Your task to perform on an android device: Open Chrome and go to the settings page Image 0: 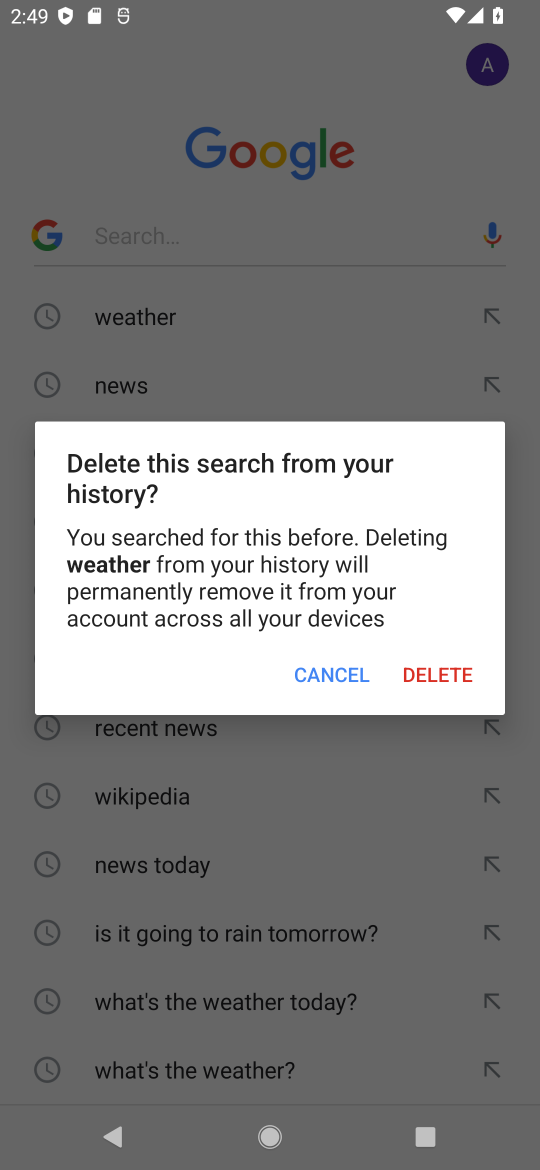
Step 0: click (336, 687)
Your task to perform on an android device: Open Chrome and go to the settings page Image 1: 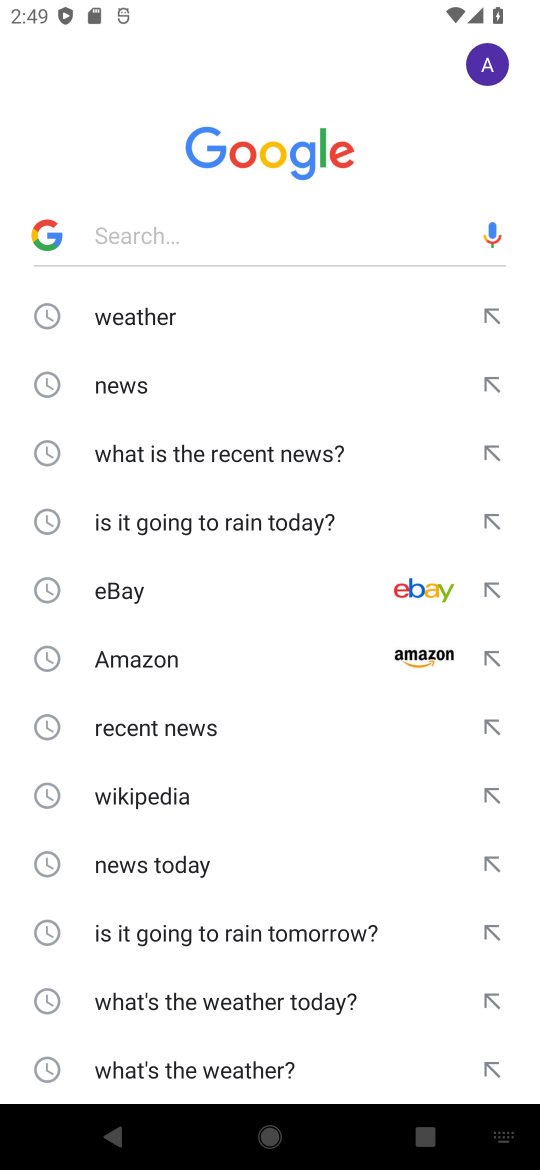
Step 1: press back button
Your task to perform on an android device: Open Chrome and go to the settings page Image 2: 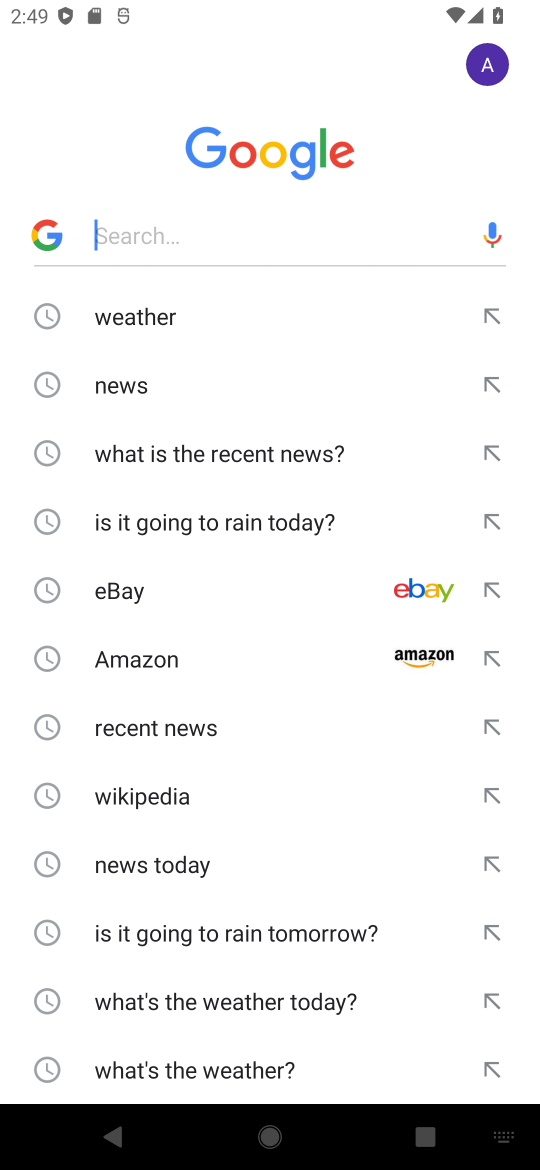
Step 2: press back button
Your task to perform on an android device: Open Chrome and go to the settings page Image 3: 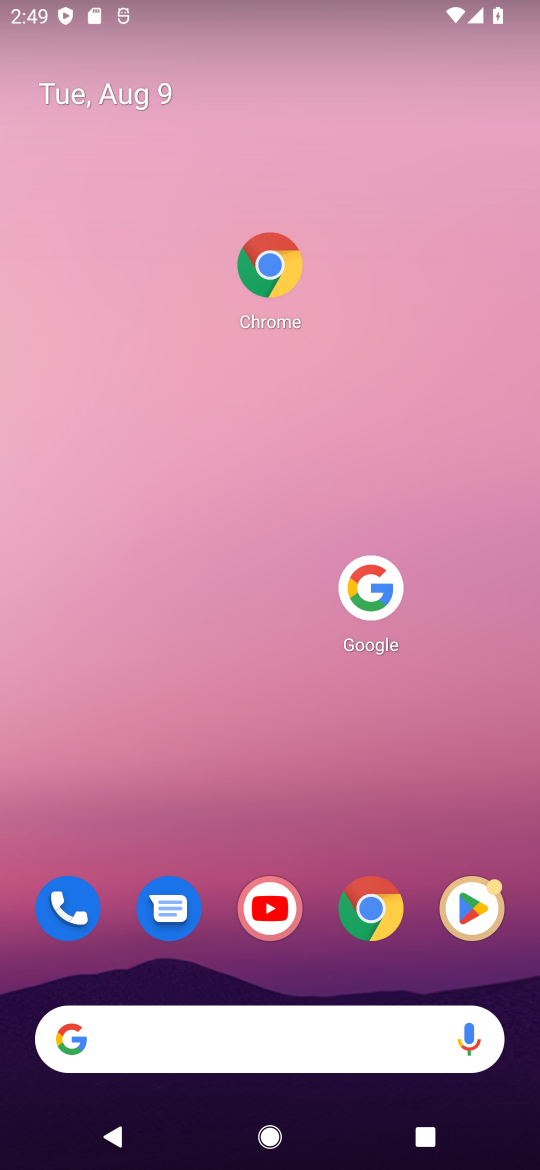
Step 3: press back button
Your task to perform on an android device: Open Chrome and go to the settings page Image 4: 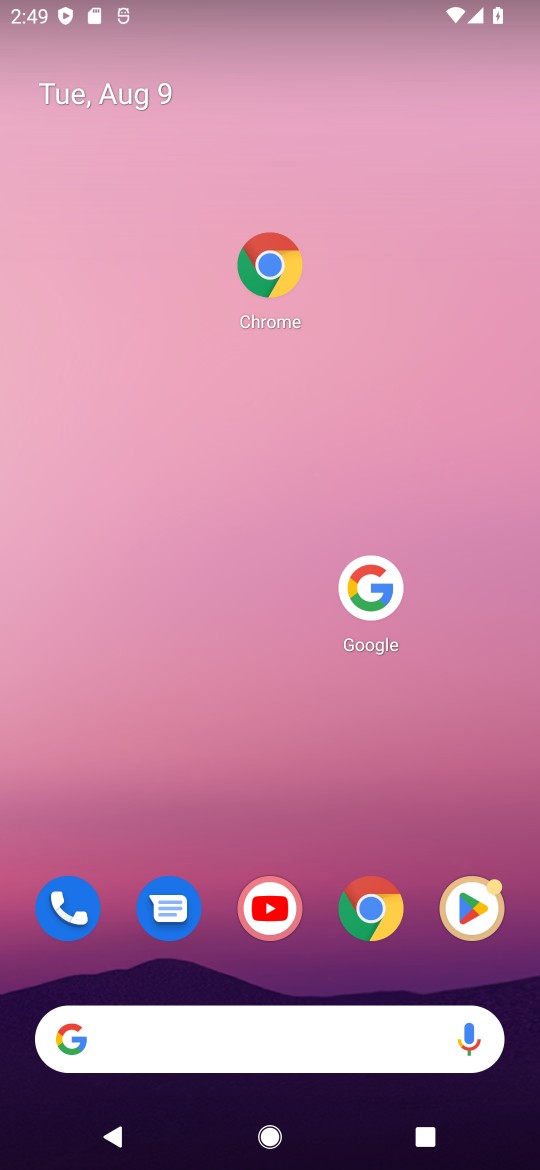
Step 4: press back button
Your task to perform on an android device: Open Chrome and go to the settings page Image 5: 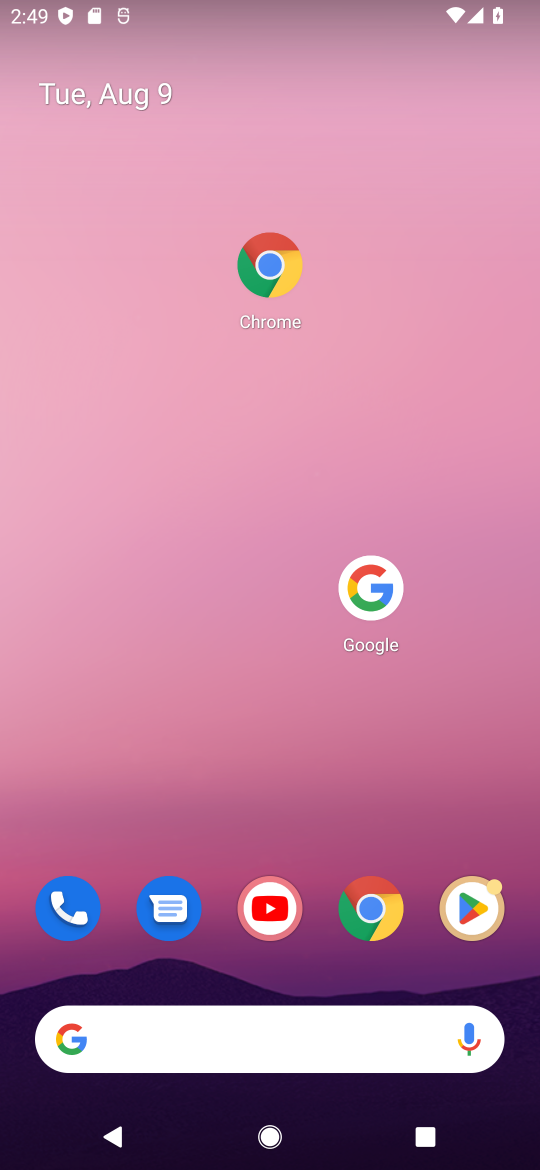
Step 5: drag from (265, 346) to (241, 82)
Your task to perform on an android device: Open Chrome and go to the settings page Image 6: 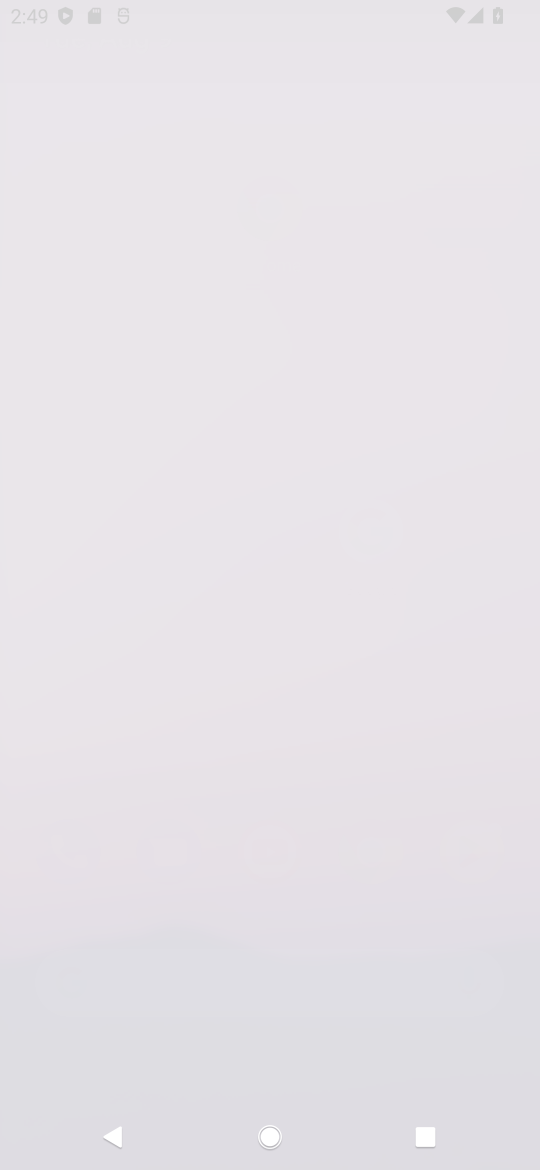
Step 6: drag from (301, 666) to (245, 306)
Your task to perform on an android device: Open Chrome and go to the settings page Image 7: 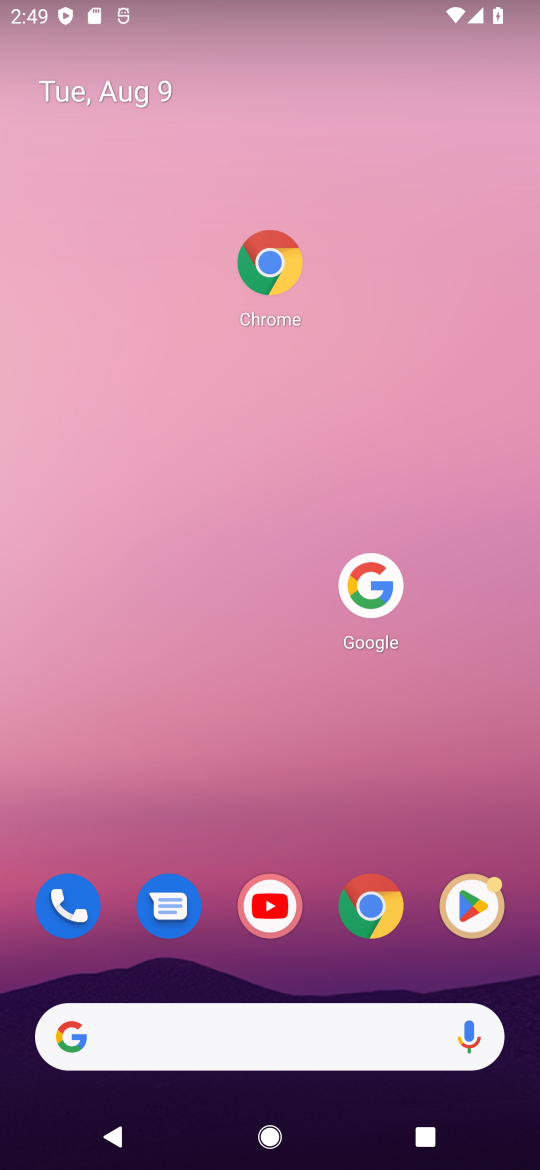
Step 7: drag from (204, 562) to (204, 442)
Your task to perform on an android device: Open Chrome and go to the settings page Image 8: 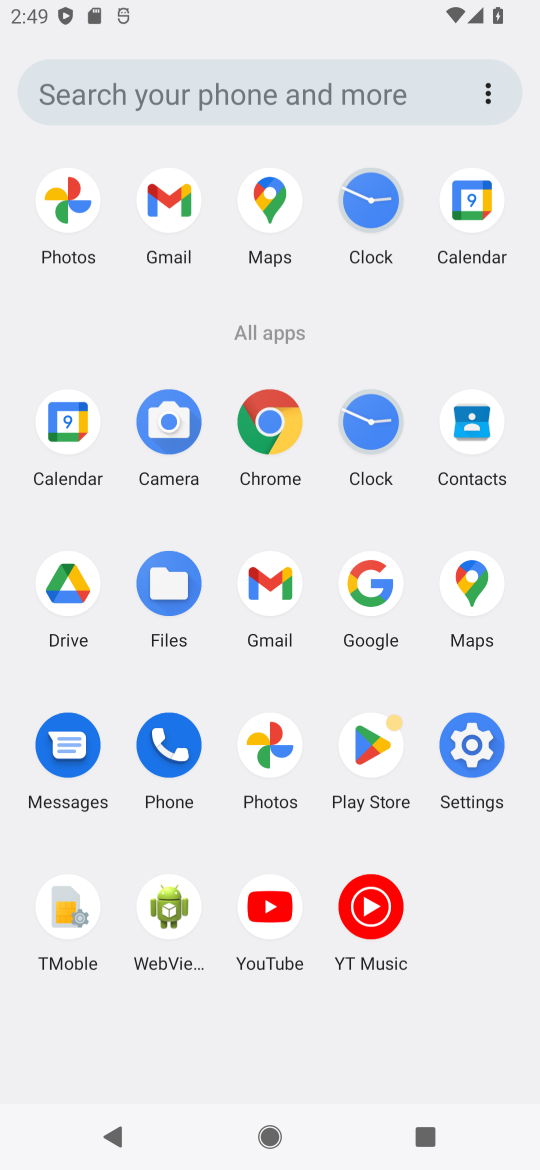
Step 8: drag from (353, 935) to (317, 323)
Your task to perform on an android device: Open Chrome and go to the settings page Image 9: 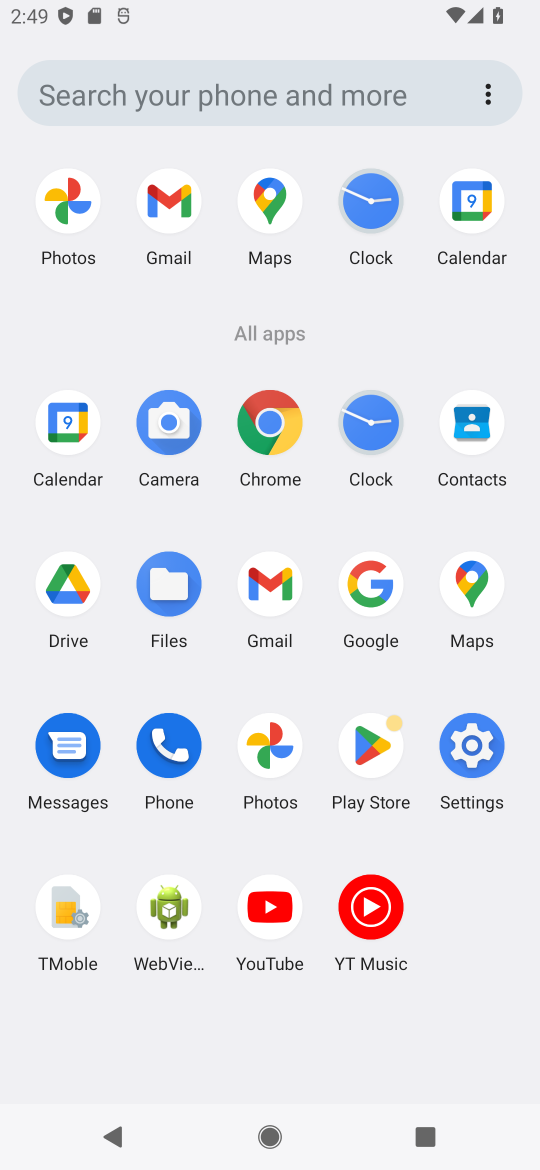
Step 9: click (481, 752)
Your task to perform on an android device: Open Chrome and go to the settings page Image 10: 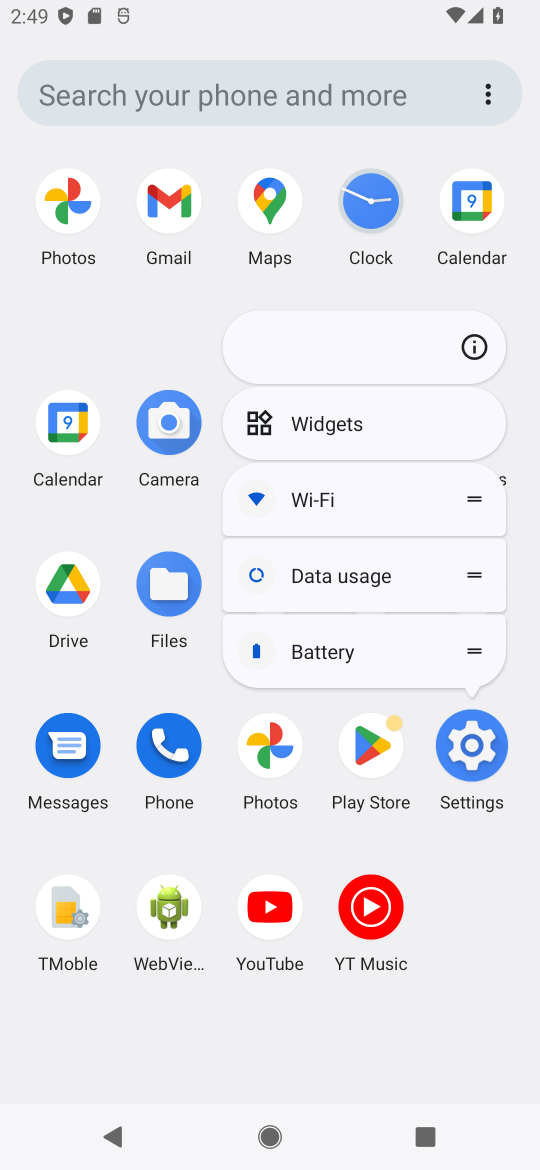
Step 10: click (477, 747)
Your task to perform on an android device: Open Chrome and go to the settings page Image 11: 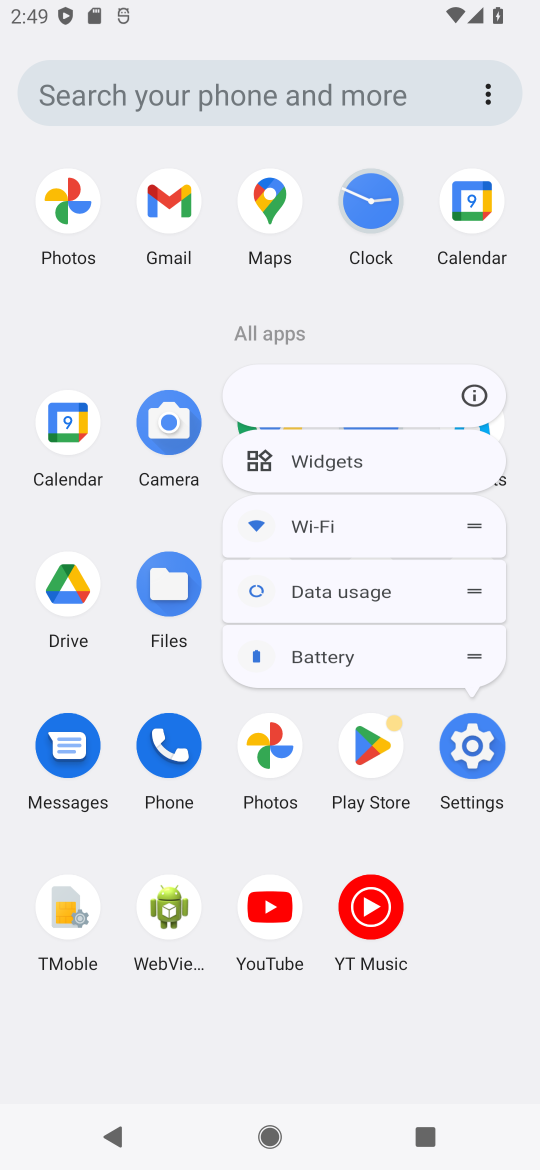
Step 11: click (481, 758)
Your task to perform on an android device: Open Chrome and go to the settings page Image 12: 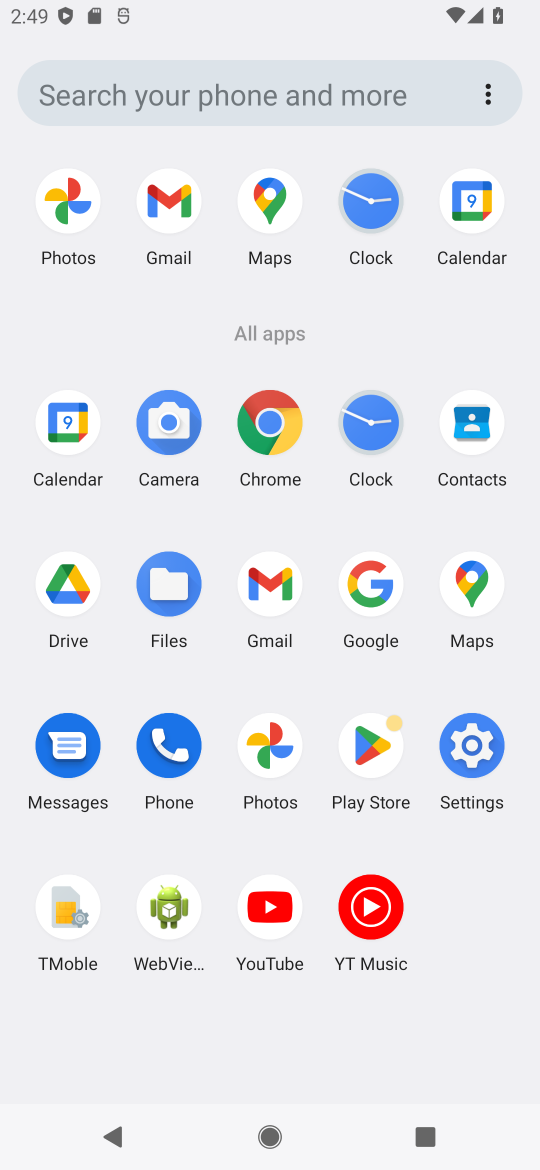
Step 12: drag from (471, 725) to (469, 792)
Your task to perform on an android device: Open Chrome and go to the settings page Image 13: 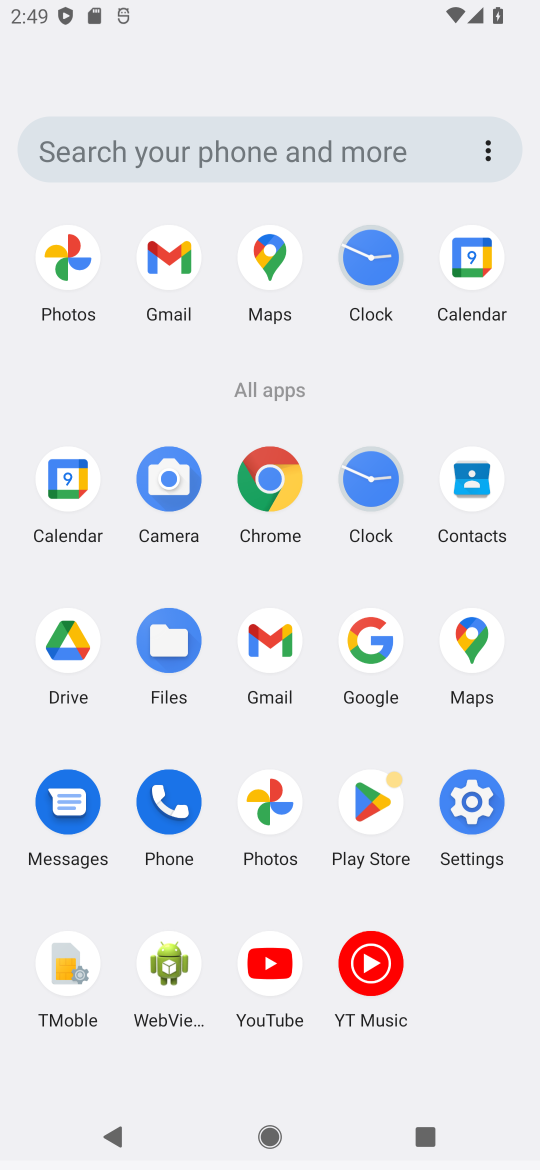
Step 13: click (469, 793)
Your task to perform on an android device: Open Chrome and go to the settings page Image 14: 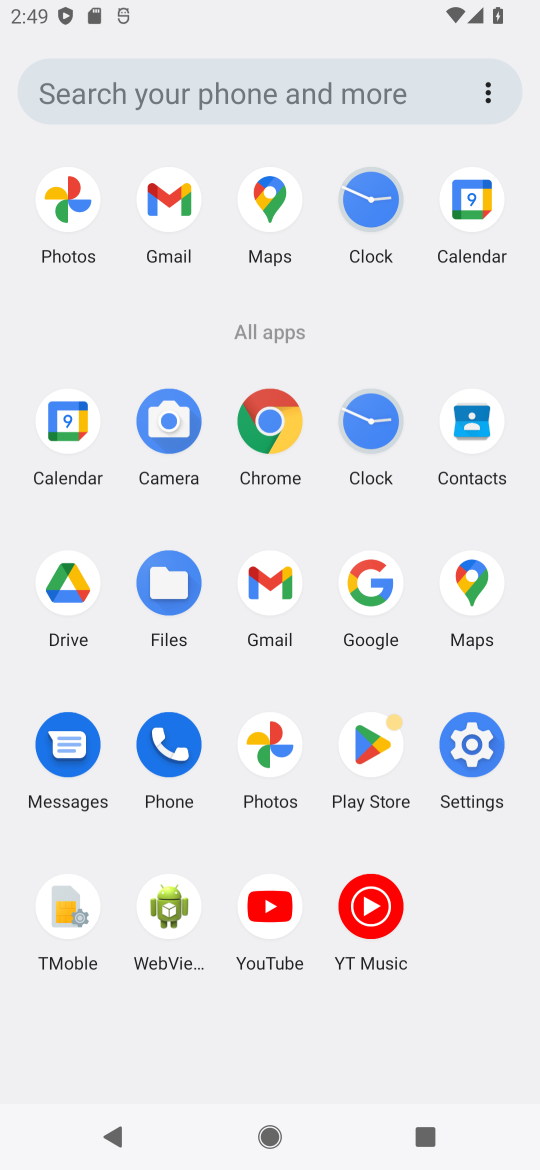
Step 14: click (474, 802)
Your task to perform on an android device: Open Chrome and go to the settings page Image 15: 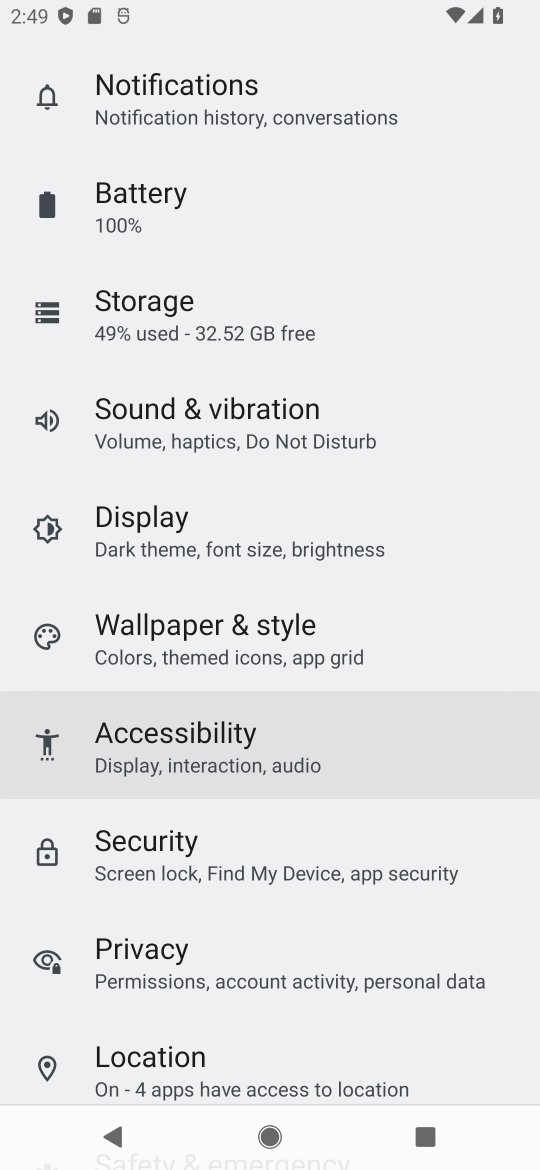
Step 15: click (289, 425)
Your task to perform on an android device: Open Chrome and go to the settings page Image 16: 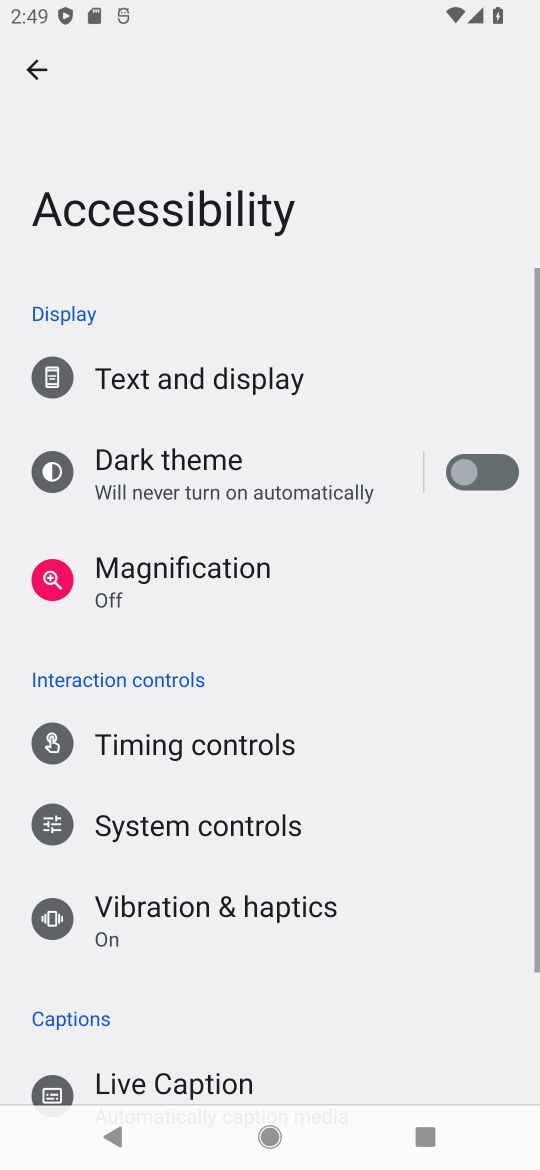
Step 16: click (45, 73)
Your task to perform on an android device: Open Chrome and go to the settings page Image 17: 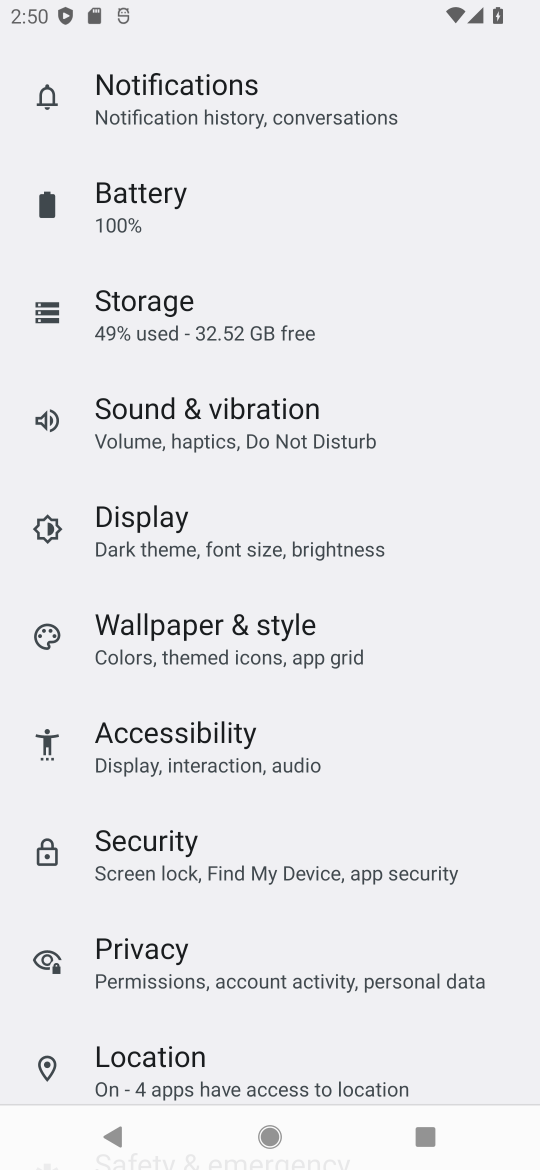
Step 17: press back button
Your task to perform on an android device: Open Chrome and go to the settings page Image 18: 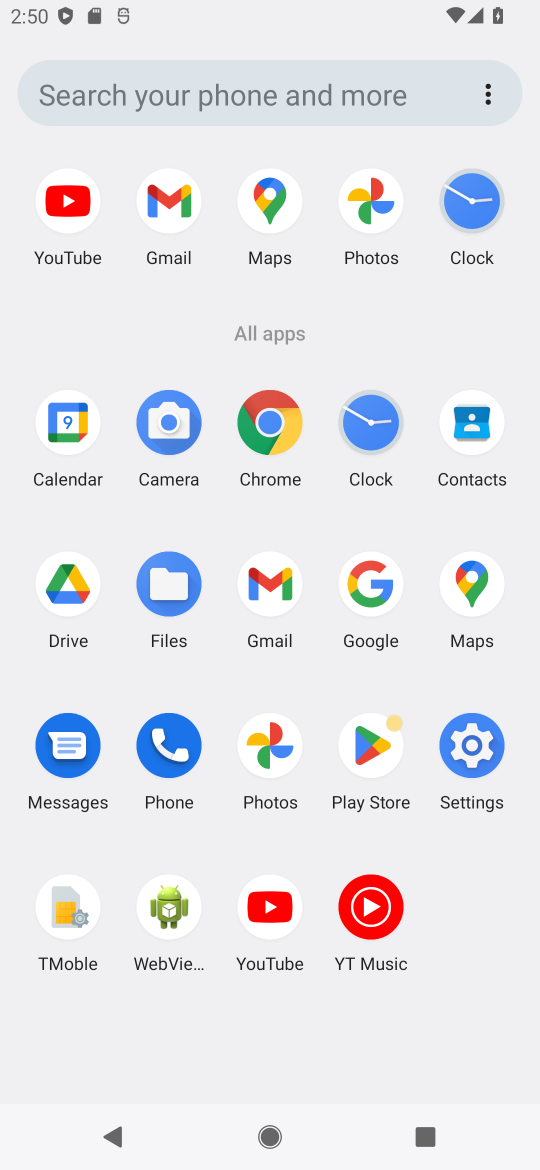
Step 18: click (264, 439)
Your task to perform on an android device: Open Chrome and go to the settings page Image 19: 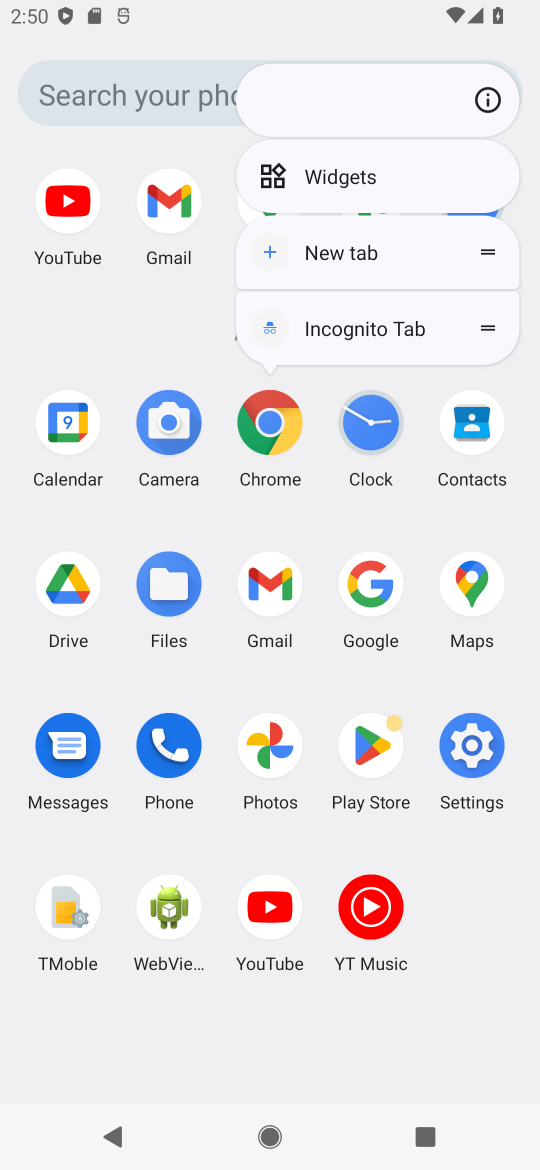
Step 19: click (273, 424)
Your task to perform on an android device: Open Chrome and go to the settings page Image 20: 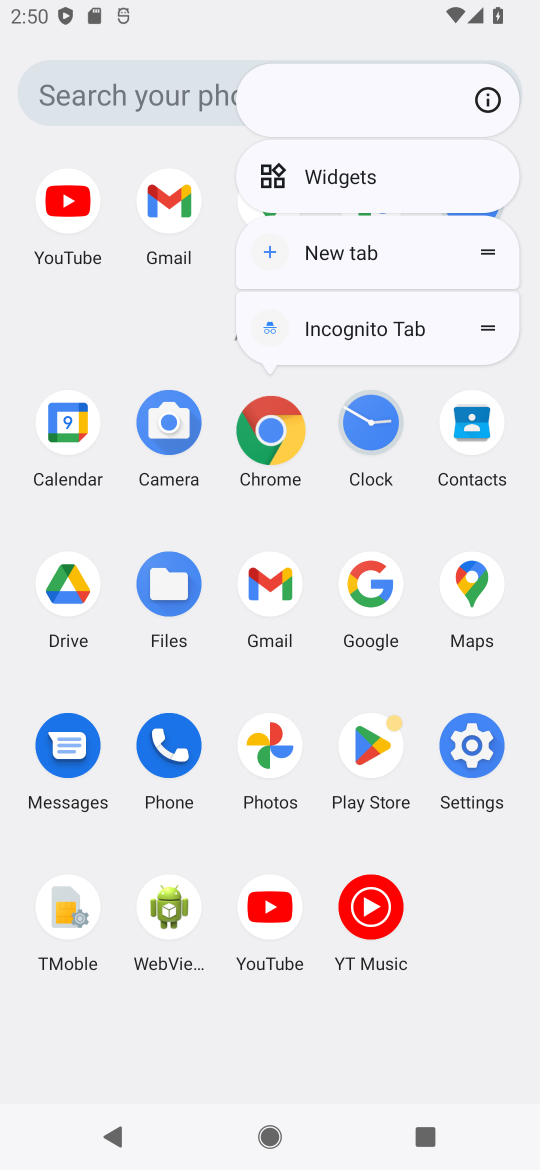
Step 20: click (275, 438)
Your task to perform on an android device: Open Chrome and go to the settings page Image 21: 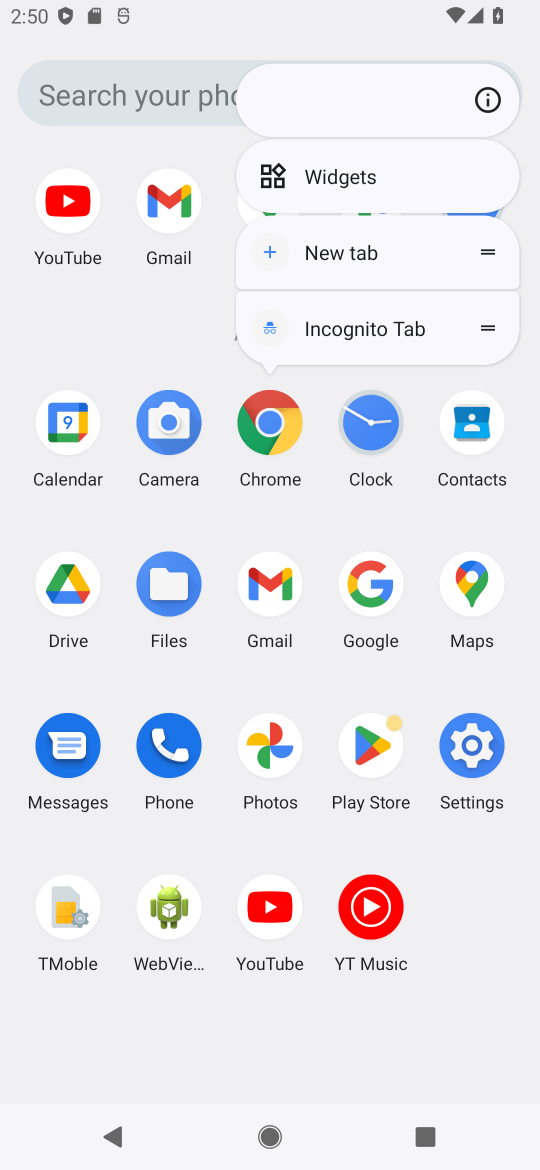
Step 21: click (275, 439)
Your task to perform on an android device: Open Chrome and go to the settings page Image 22: 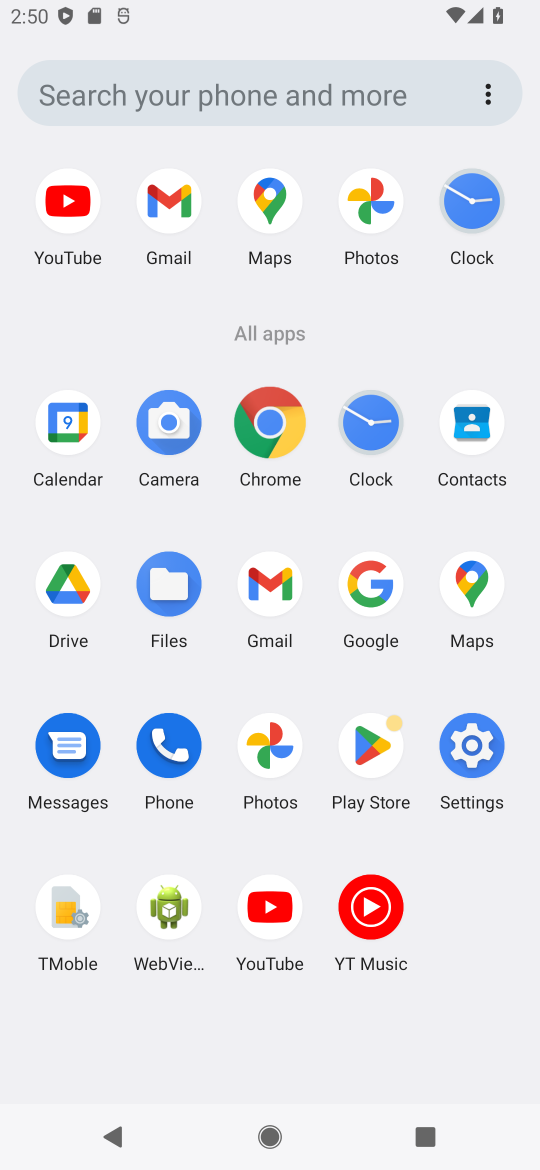
Step 22: click (275, 439)
Your task to perform on an android device: Open Chrome and go to the settings page Image 23: 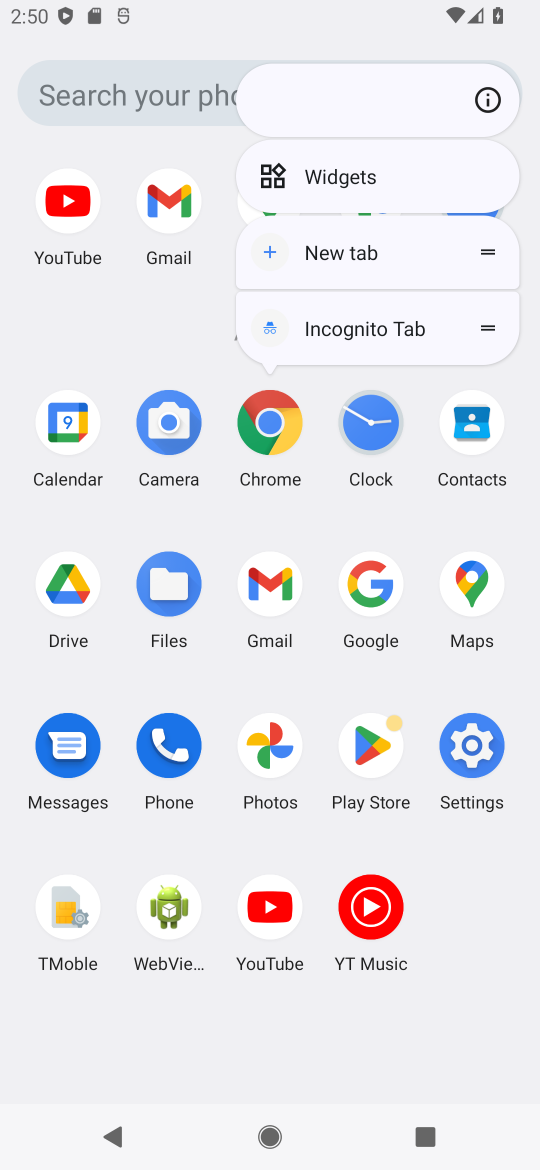
Step 23: click (335, 242)
Your task to perform on an android device: Open Chrome and go to the settings page Image 24: 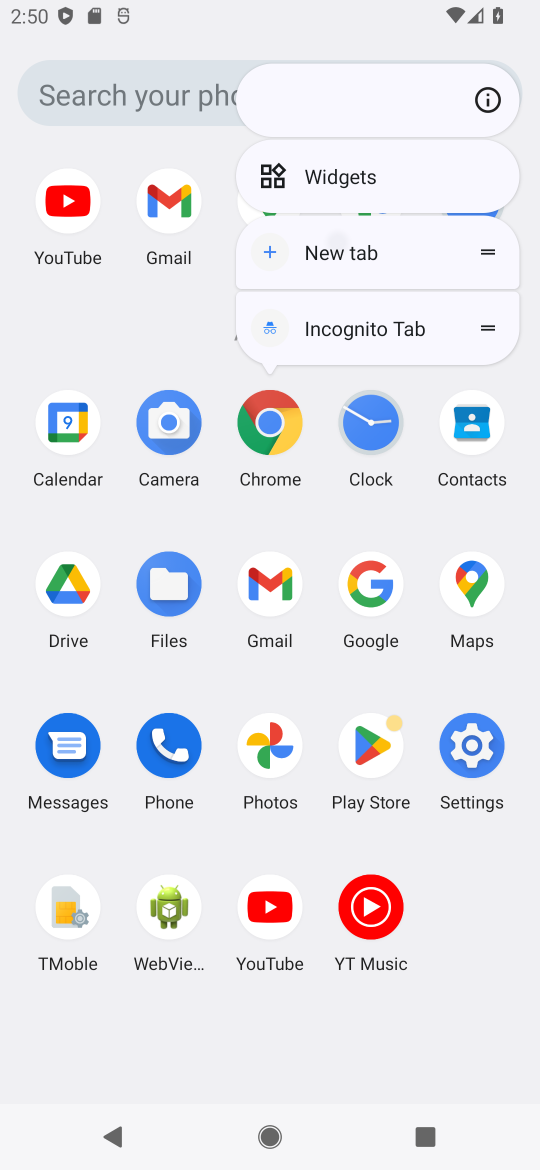
Step 24: click (346, 270)
Your task to perform on an android device: Open Chrome and go to the settings page Image 25: 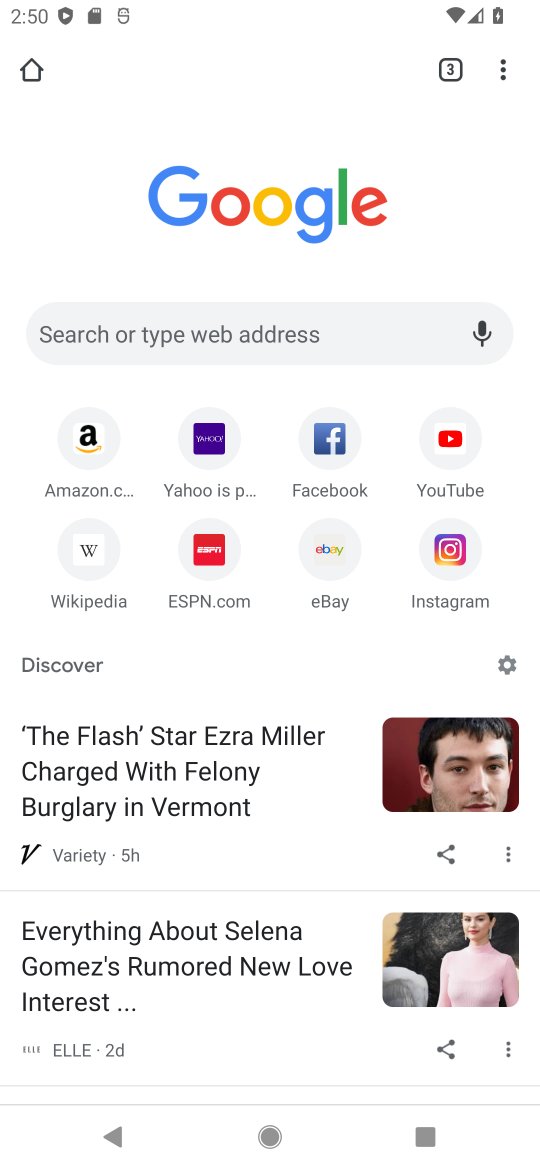
Step 25: drag from (497, 67) to (299, 616)
Your task to perform on an android device: Open Chrome and go to the settings page Image 26: 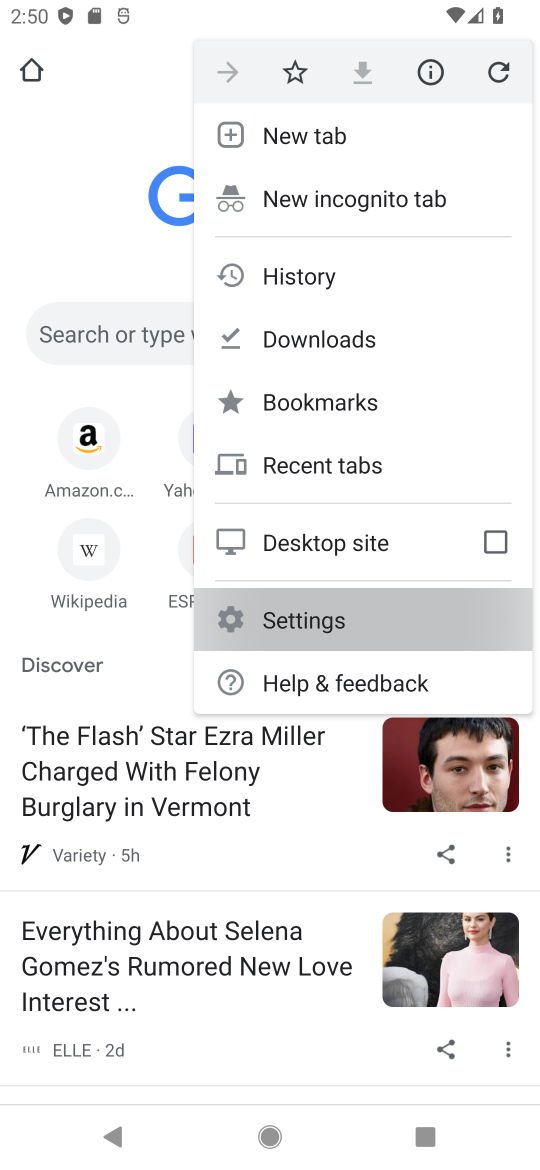
Step 26: click (300, 624)
Your task to perform on an android device: Open Chrome and go to the settings page Image 27: 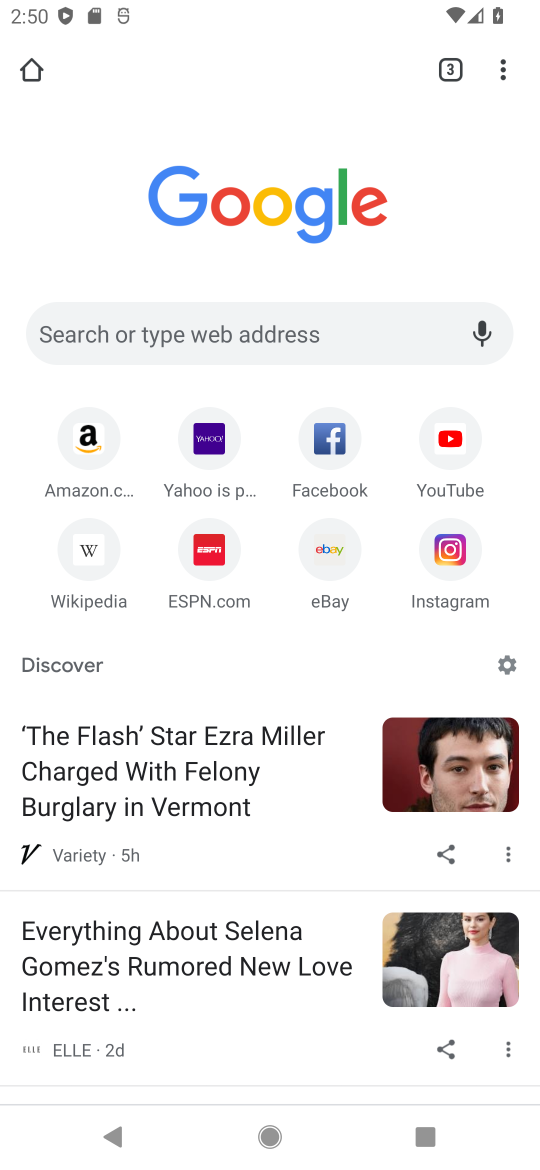
Step 27: click (302, 622)
Your task to perform on an android device: Open Chrome and go to the settings page Image 28: 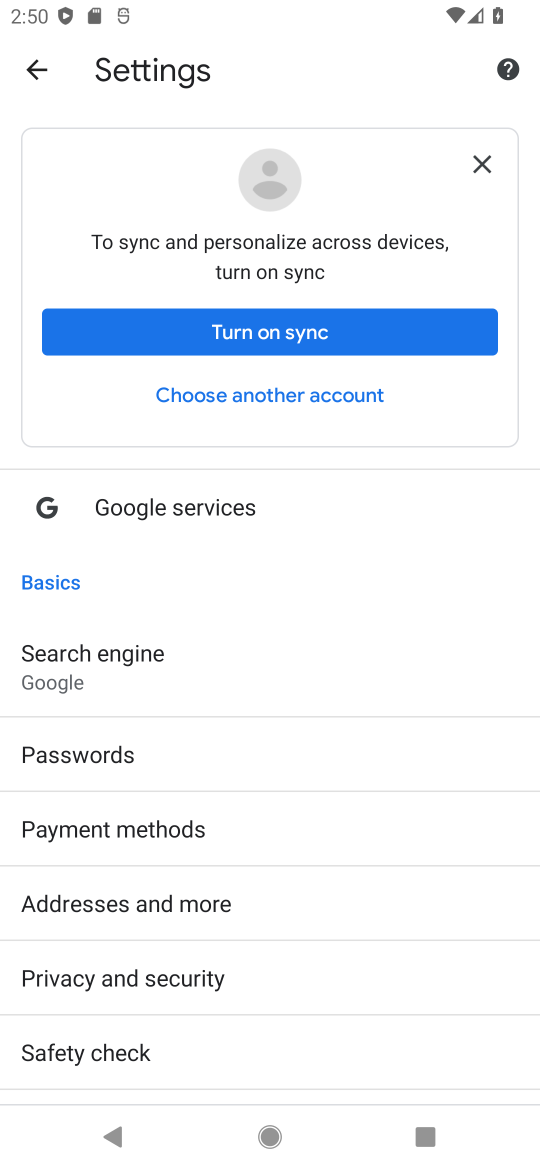
Step 28: click (487, 158)
Your task to perform on an android device: Open Chrome and go to the settings page Image 29: 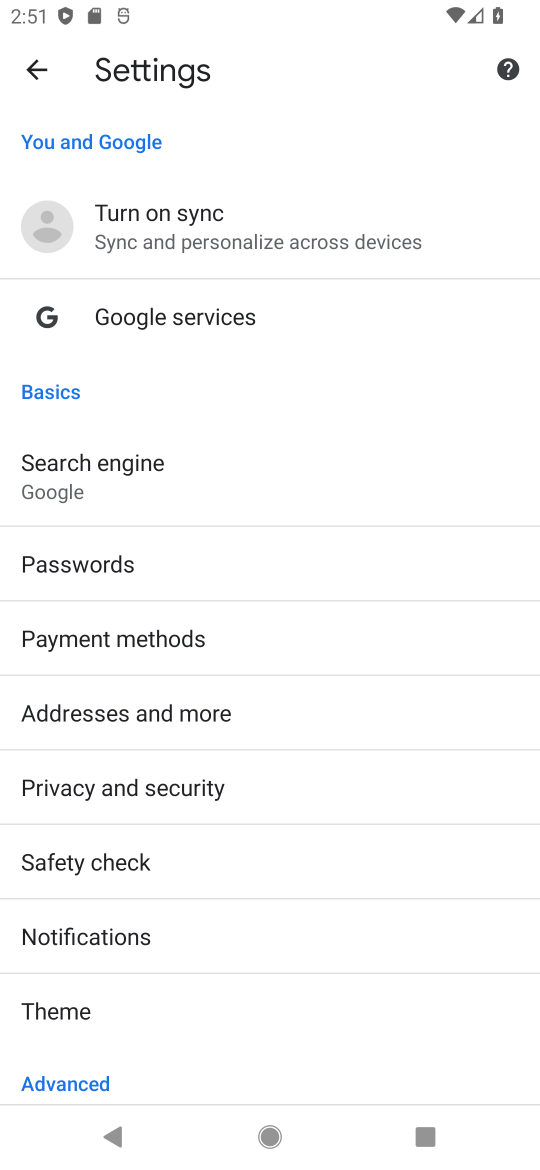
Step 29: click (36, 72)
Your task to perform on an android device: Open Chrome and go to the settings page Image 30: 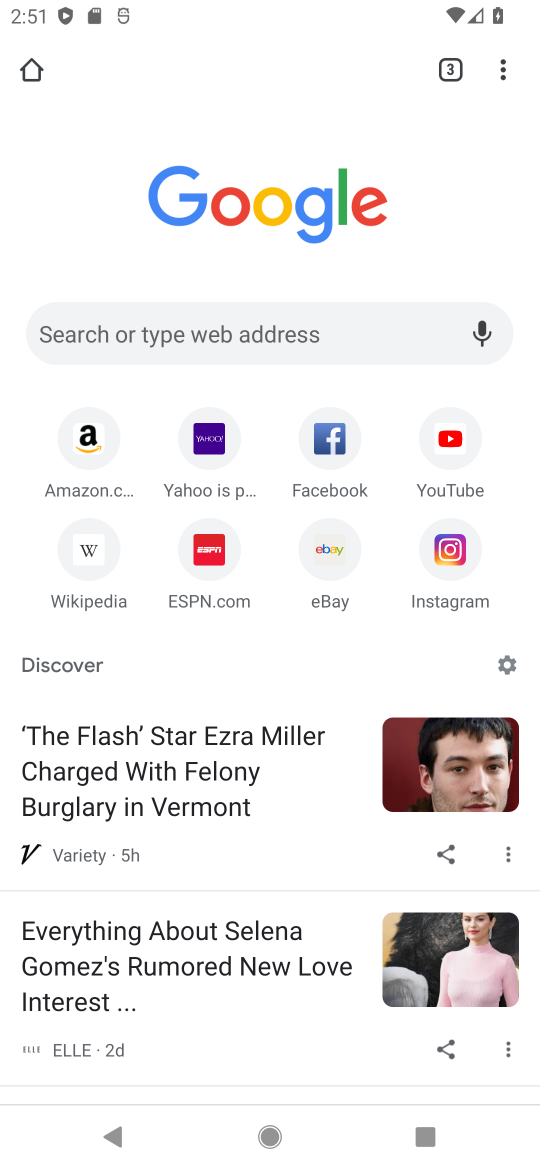
Step 30: press back button
Your task to perform on an android device: Open Chrome and go to the settings page Image 31: 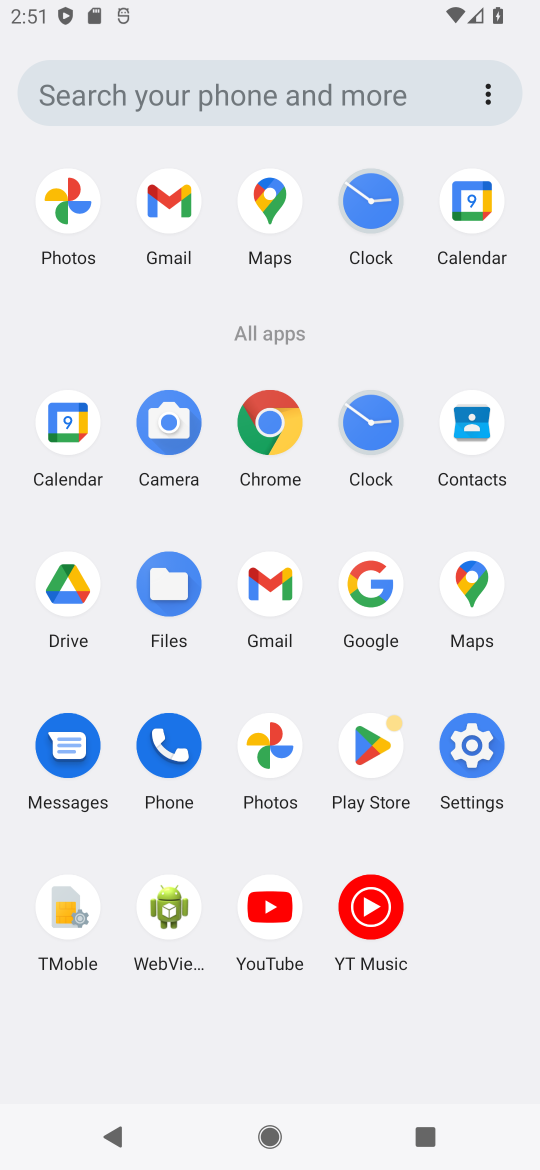
Step 31: click (256, 428)
Your task to perform on an android device: Open Chrome and go to the settings page Image 32: 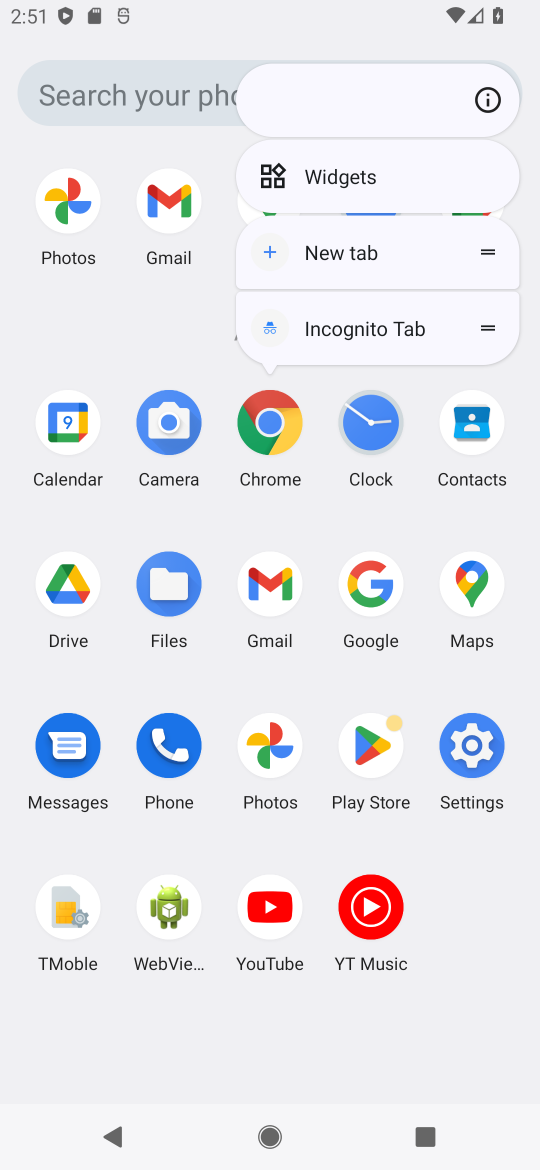
Step 32: click (256, 428)
Your task to perform on an android device: Open Chrome and go to the settings page Image 33: 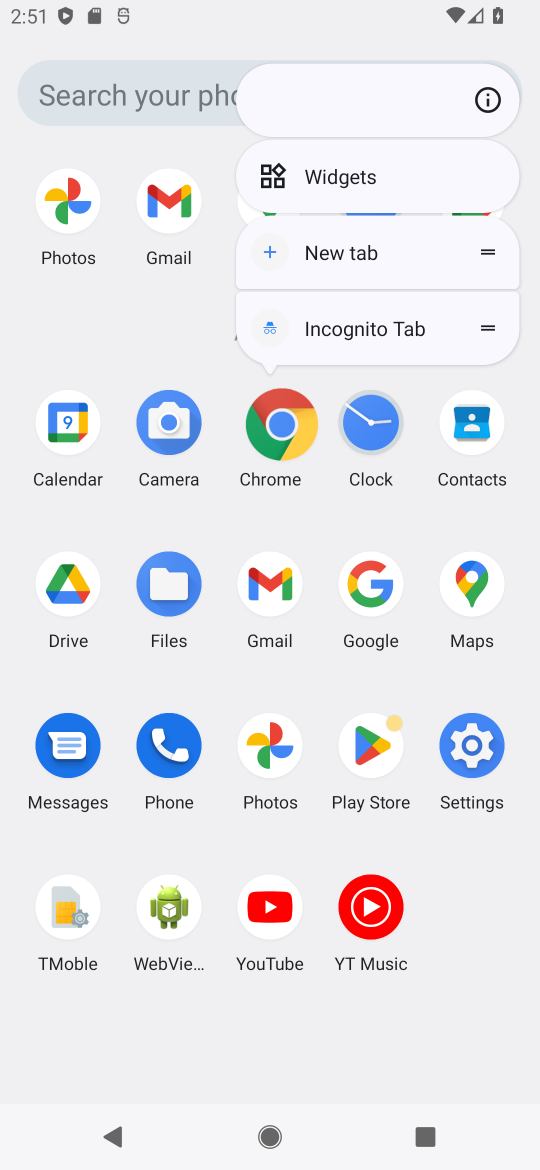
Step 33: click (269, 431)
Your task to perform on an android device: Open Chrome and go to the settings page Image 34: 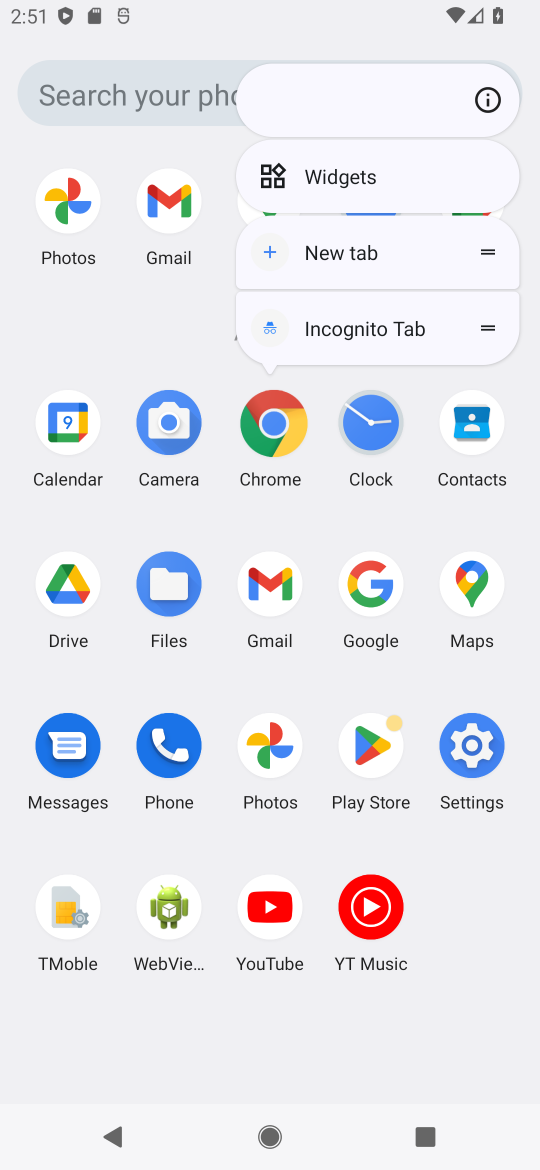
Step 34: click (269, 431)
Your task to perform on an android device: Open Chrome and go to the settings page Image 35: 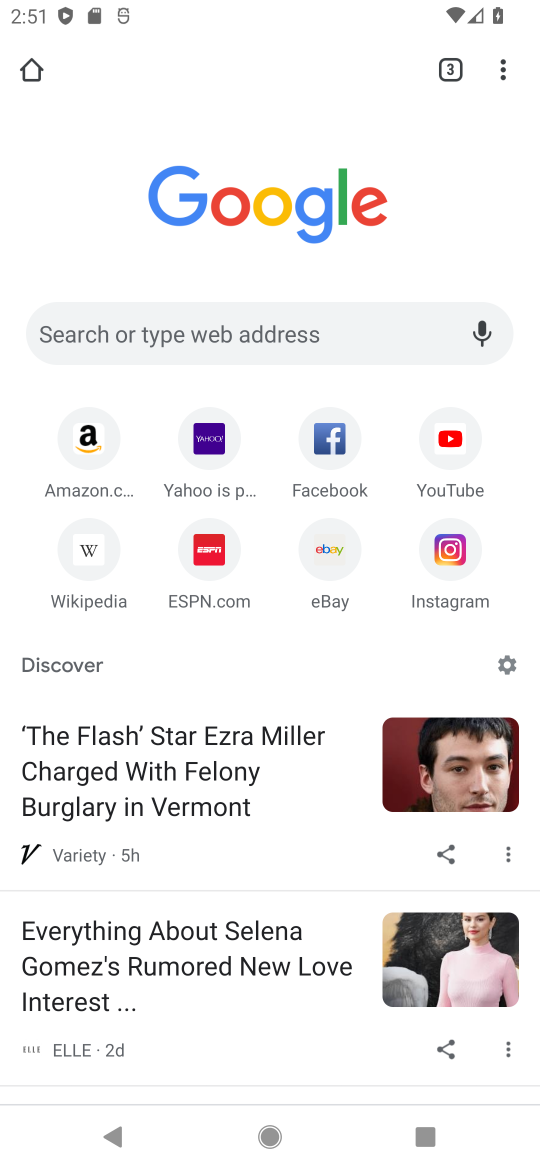
Step 35: task complete